Your task to perform on an android device: Open Google Maps and go to "Timeline" Image 0: 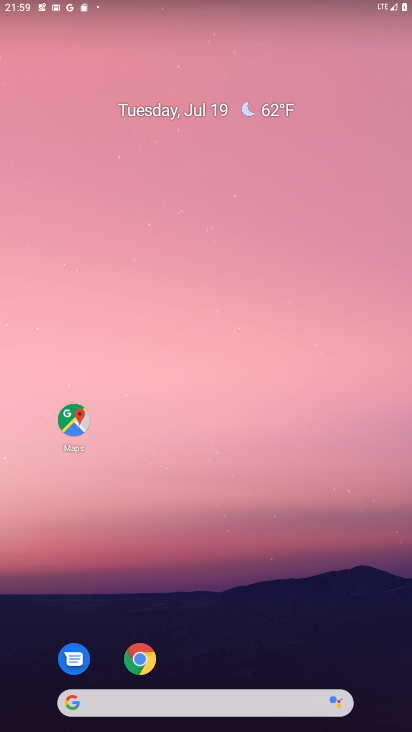
Step 0: drag from (255, 624) to (310, 33)
Your task to perform on an android device: Open Google Maps and go to "Timeline" Image 1: 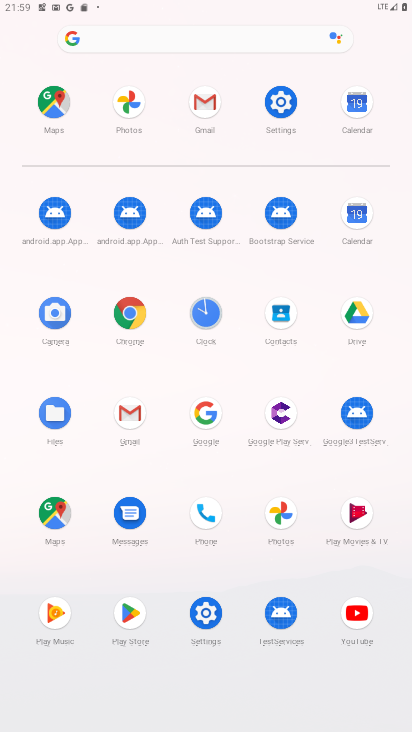
Step 1: click (58, 519)
Your task to perform on an android device: Open Google Maps and go to "Timeline" Image 2: 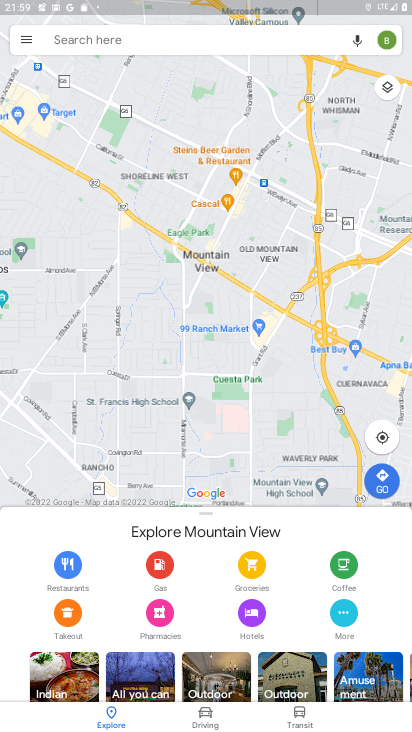
Step 2: click (21, 39)
Your task to perform on an android device: Open Google Maps and go to "Timeline" Image 3: 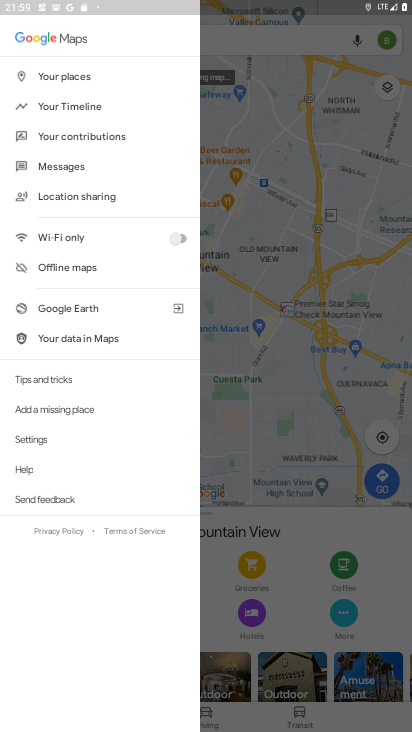
Step 3: click (51, 105)
Your task to perform on an android device: Open Google Maps and go to "Timeline" Image 4: 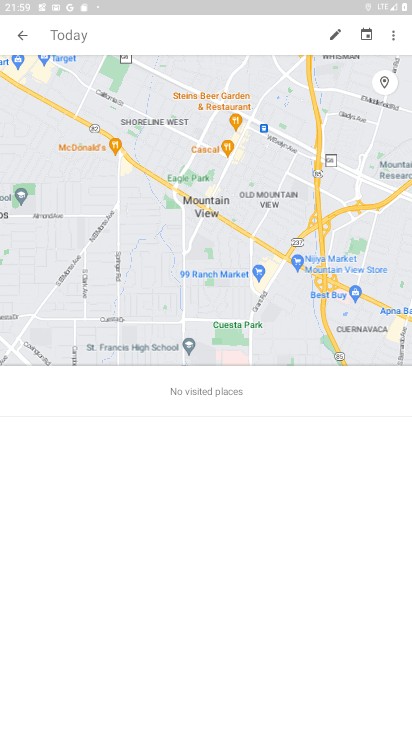
Step 4: task complete